Your task to perform on an android device: search for starred emails in the gmail app Image 0: 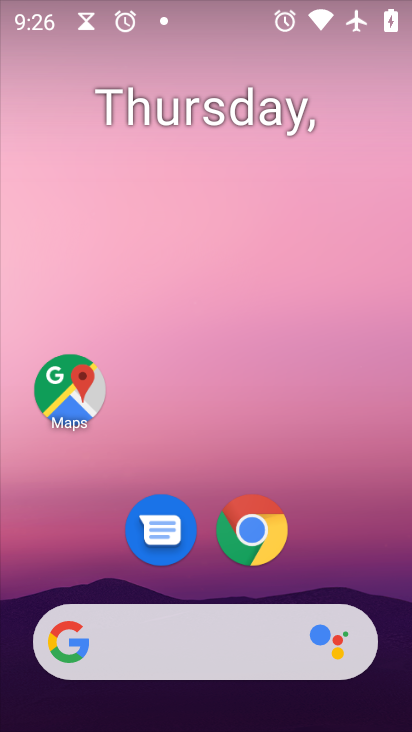
Step 0: drag from (325, 549) to (268, 19)
Your task to perform on an android device: search for starred emails in the gmail app Image 1: 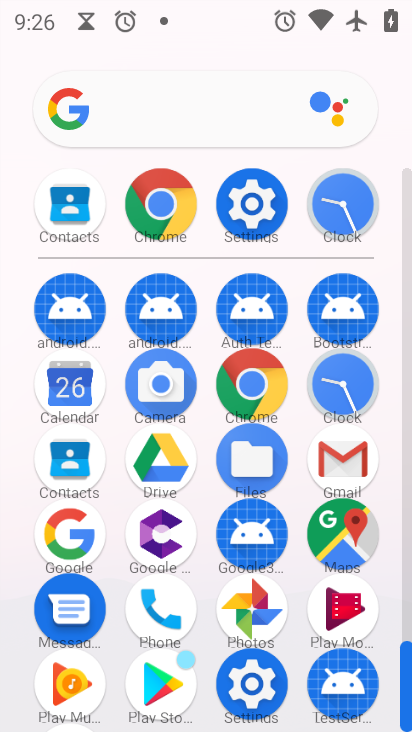
Step 1: drag from (6, 619) to (24, 281)
Your task to perform on an android device: search for starred emails in the gmail app Image 2: 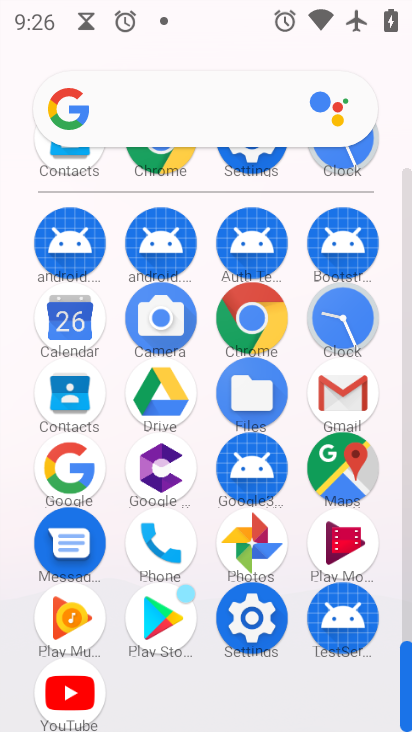
Step 2: click (341, 390)
Your task to perform on an android device: search for starred emails in the gmail app Image 3: 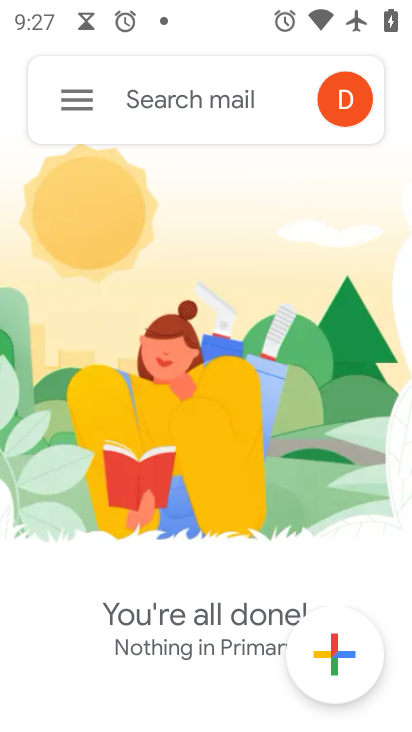
Step 3: click (74, 77)
Your task to perform on an android device: search for starred emails in the gmail app Image 4: 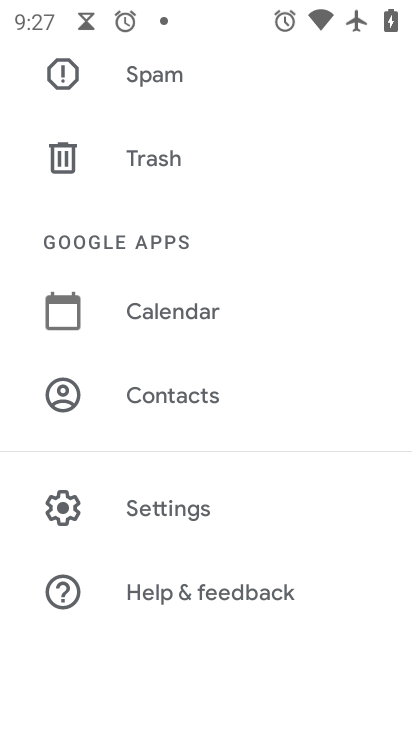
Step 4: drag from (254, 177) to (252, 572)
Your task to perform on an android device: search for starred emails in the gmail app Image 5: 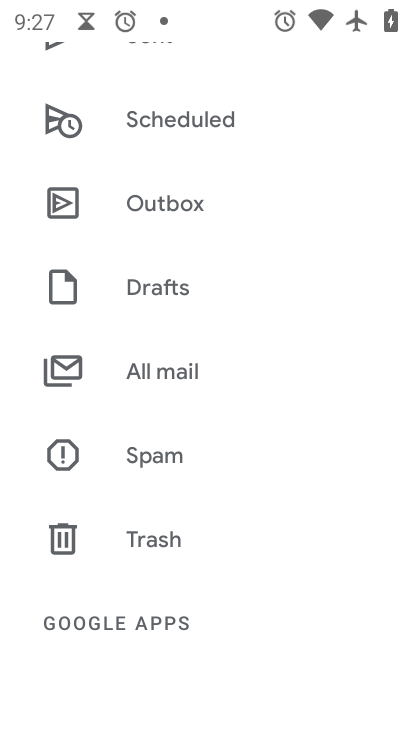
Step 5: drag from (252, 161) to (254, 559)
Your task to perform on an android device: search for starred emails in the gmail app Image 6: 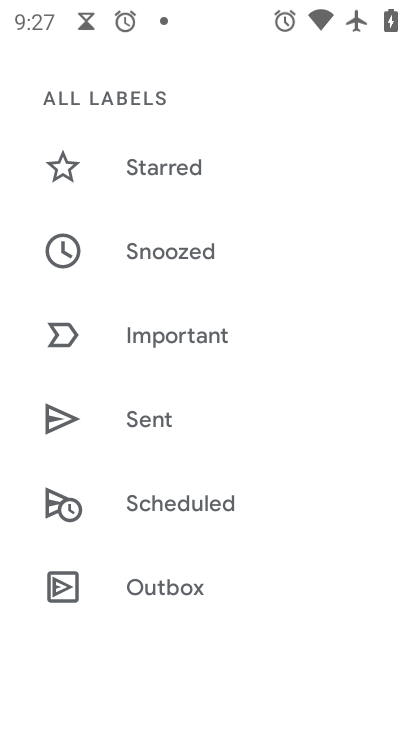
Step 6: click (185, 169)
Your task to perform on an android device: search for starred emails in the gmail app Image 7: 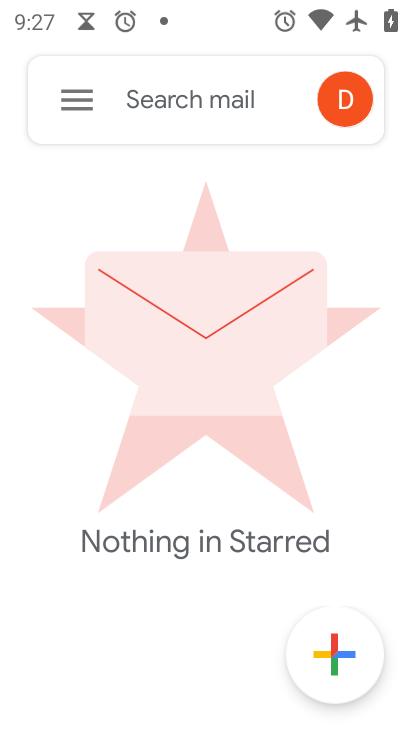
Step 7: task complete